Your task to perform on an android device: allow cookies in the chrome app Image 0: 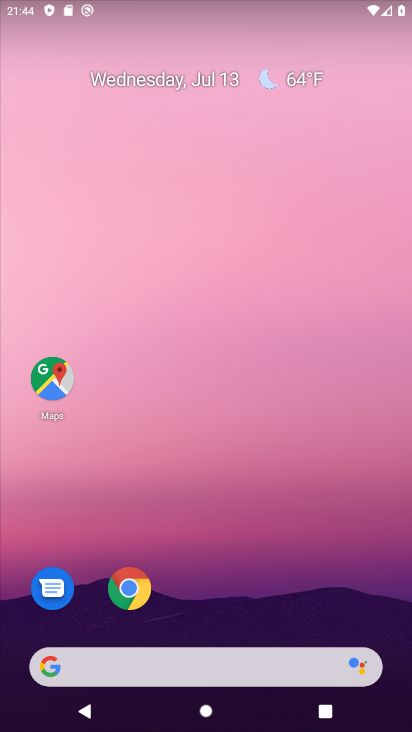
Step 0: click (130, 605)
Your task to perform on an android device: allow cookies in the chrome app Image 1: 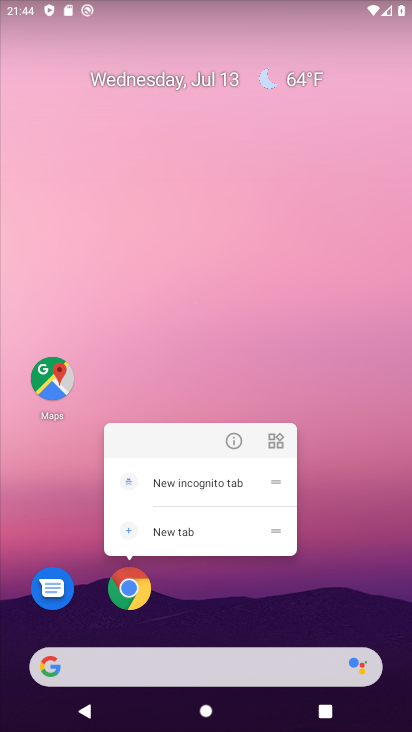
Step 1: click (134, 589)
Your task to perform on an android device: allow cookies in the chrome app Image 2: 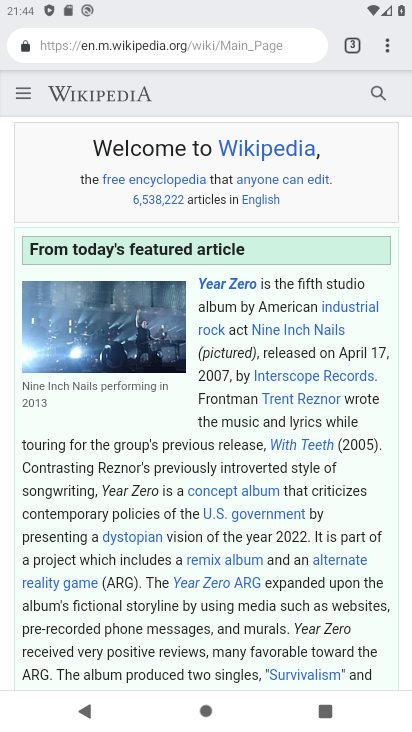
Step 2: drag from (381, 41) to (216, 542)
Your task to perform on an android device: allow cookies in the chrome app Image 3: 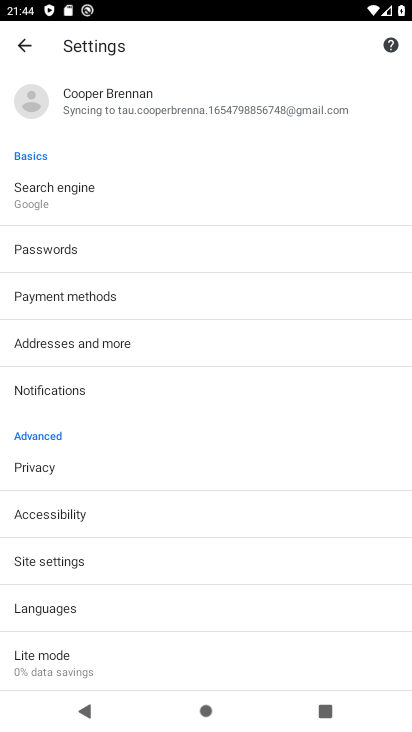
Step 3: click (61, 561)
Your task to perform on an android device: allow cookies in the chrome app Image 4: 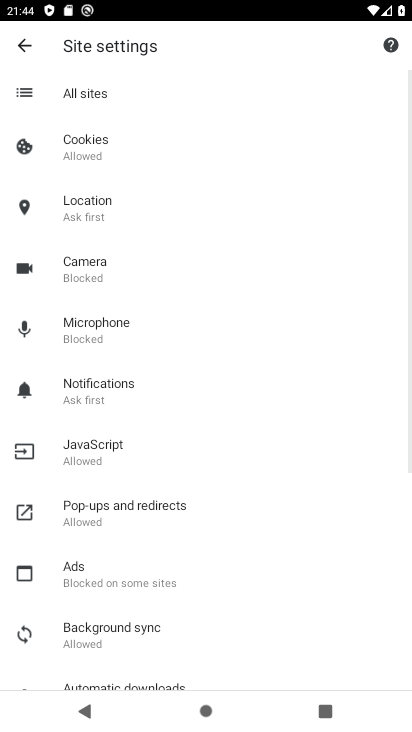
Step 4: click (108, 169)
Your task to perform on an android device: allow cookies in the chrome app Image 5: 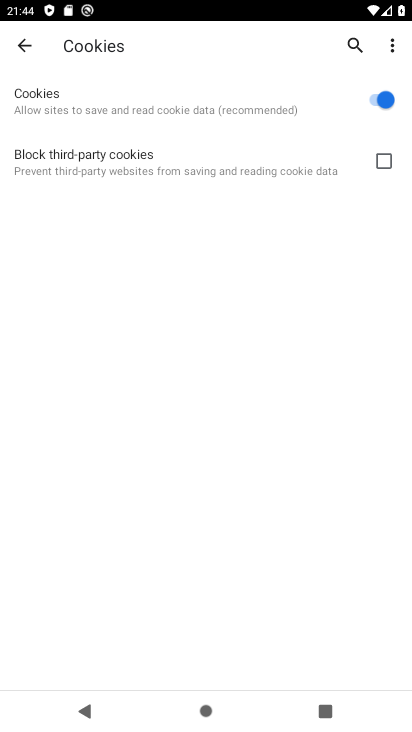
Step 5: task complete